Your task to perform on an android device: allow notifications from all sites in the chrome app Image 0: 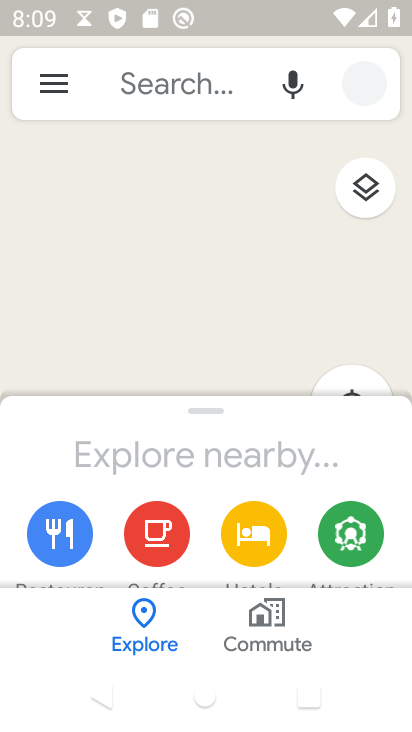
Step 0: press home button
Your task to perform on an android device: allow notifications from all sites in the chrome app Image 1: 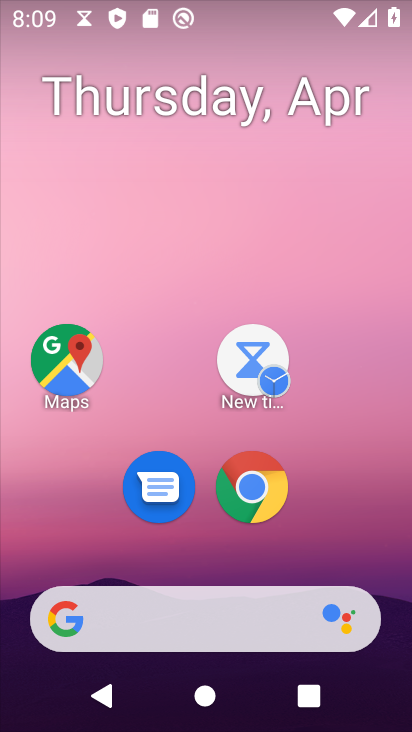
Step 1: click (256, 475)
Your task to perform on an android device: allow notifications from all sites in the chrome app Image 2: 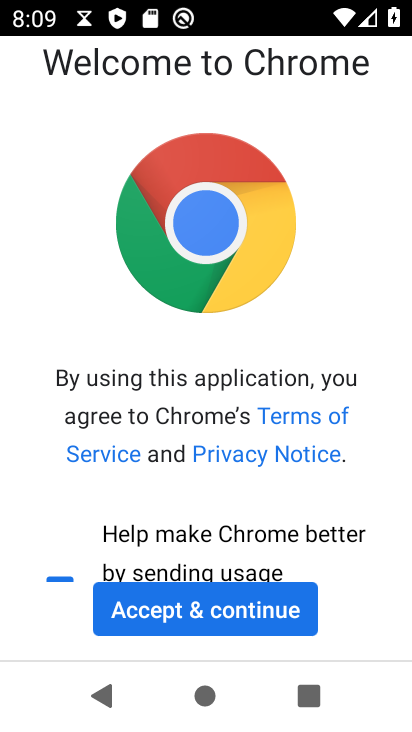
Step 2: click (198, 591)
Your task to perform on an android device: allow notifications from all sites in the chrome app Image 3: 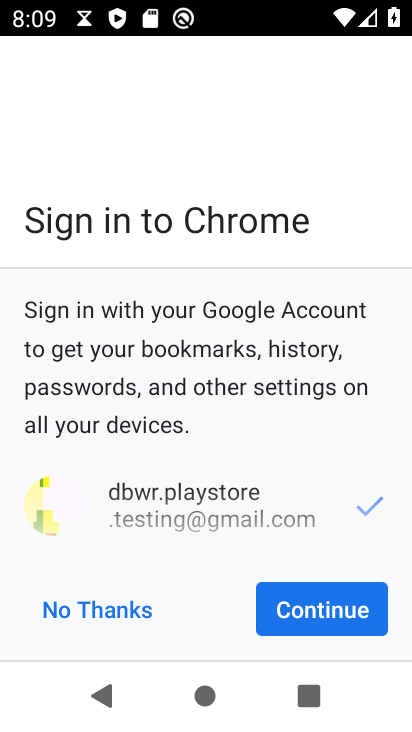
Step 3: click (295, 599)
Your task to perform on an android device: allow notifications from all sites in the chrome app Image 4: 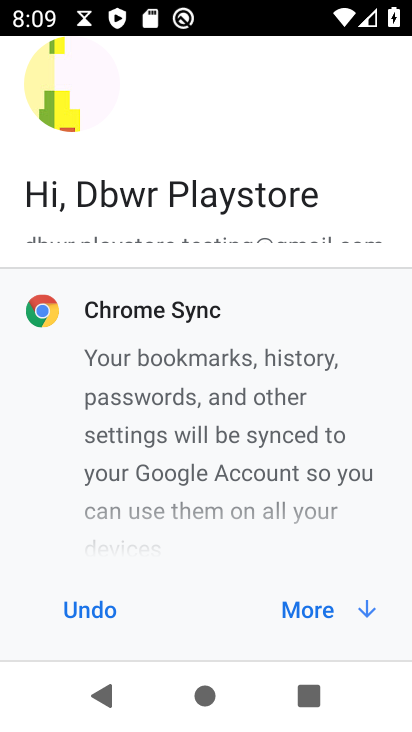
Step 4: click (296, 600)
Your task to perform on an android device: allow notifications from all sites in the chrome app Image 5: 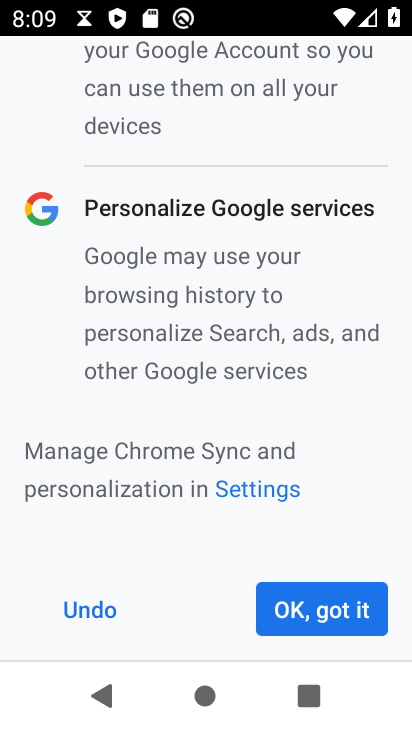
Step 5: click (296, 600)
Your task to perform on an android device: allow notifications from all sites in the chrome app Image 6: 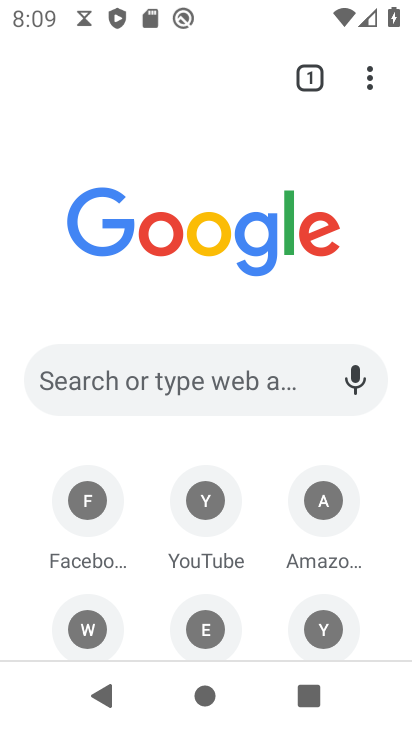
Step 6: drag from (371, 78) to (184, 548)
Your task to perform on an android device: allow notifications from all sites in the chrome app Image 7: 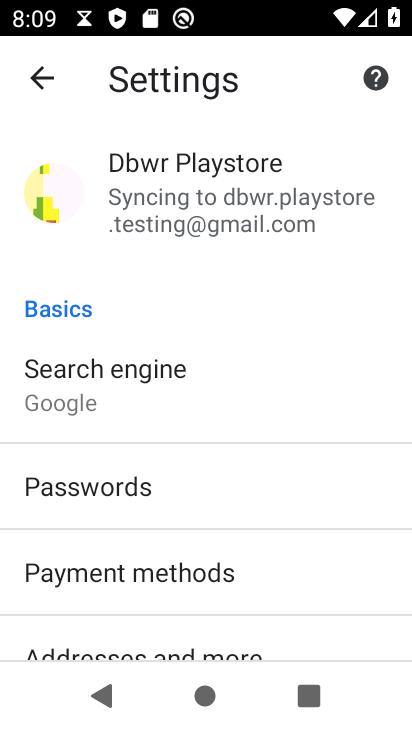
Step 7: drag from (331, 636) to (306, 197)
Your task to perform on an android device: allow notifications from all sites in the chrome app Image 8: 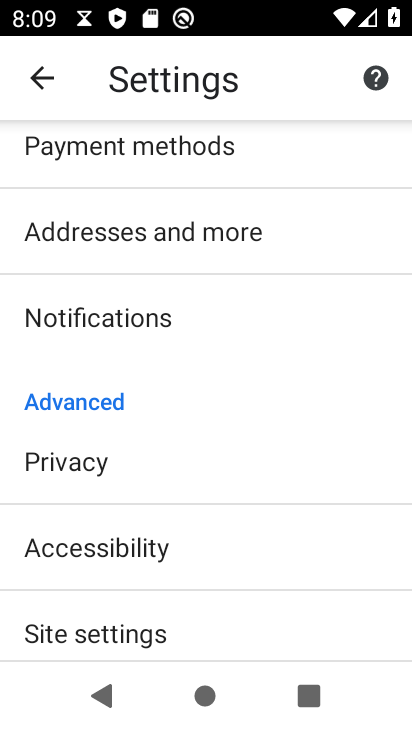
Step 8: click (112, 312)
Your task to perform on an android device: allow notifications from all sites in the chrome app Image 9: 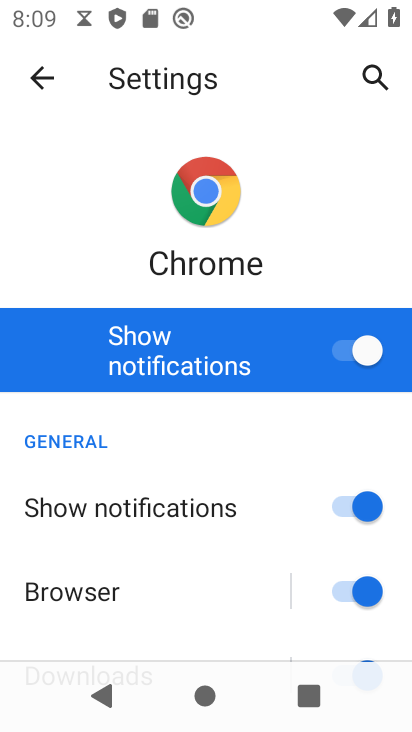
Step 9: task complete